Your task to perform on an android device: Search for vegetarian restaurants on Maps Image 0: 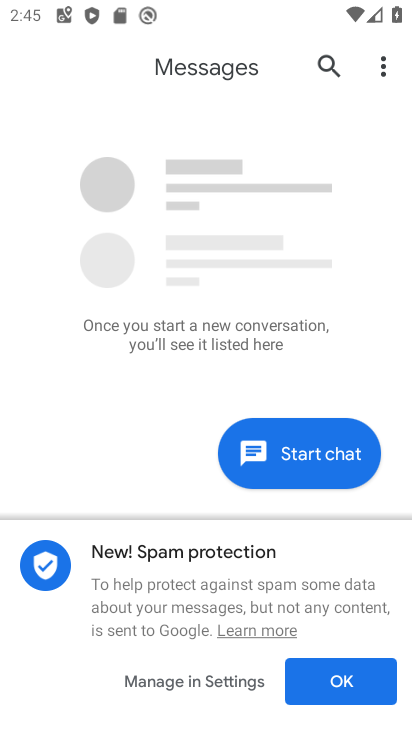
Step 0: press home button
Your task to perform on an android device: Search for vegetarian restaurants on Maps Image 1: 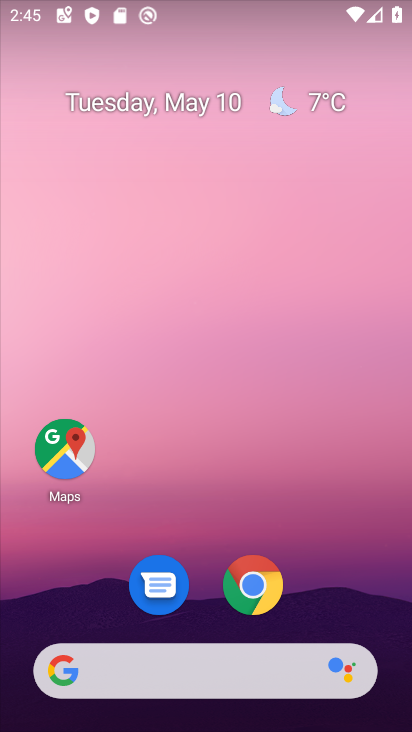
Step 1: click (65, 461)
Your task to perform on an android device: Search for vegetarian restaurants on Maps Image 2: 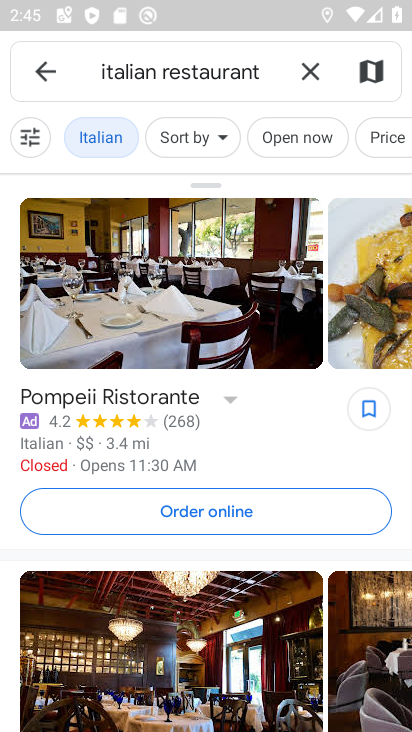
Step 2: click (311, 70)
Your task to perform on an android device: Search for vegetarian restaurants on Maps Image 3: 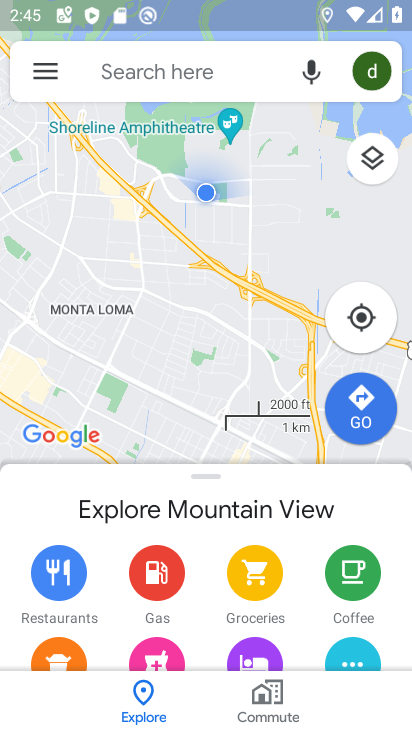
Step 3: click (190, 67)
Your task to perform on an android device: Search for vegetarian restaurants on Maps Image 4: 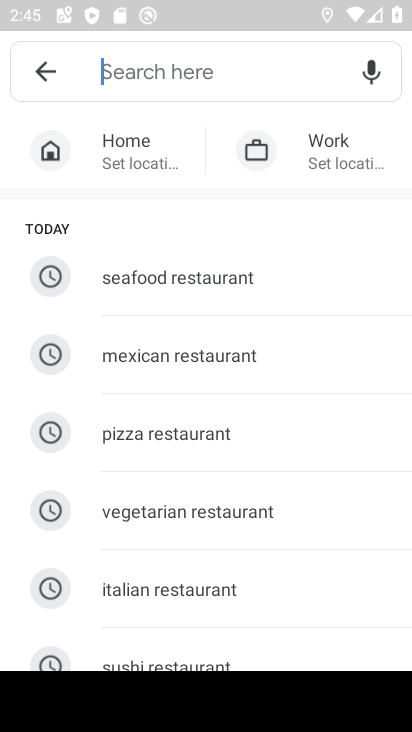
Step 4: click (217, 504)
Your task to perform on an android device: Search for vegetarian restaurants on Maps Image 5: 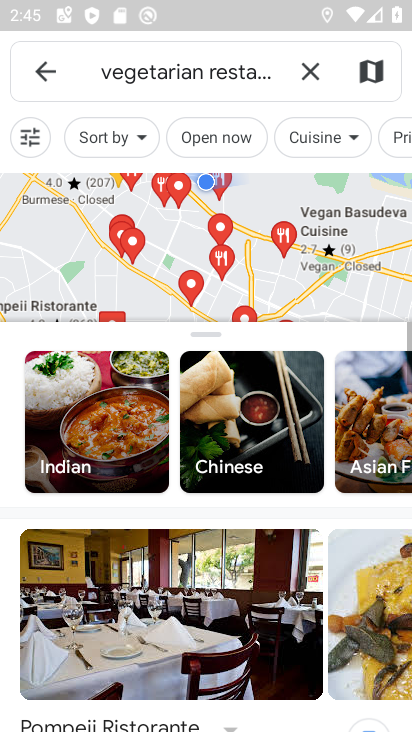
Step 5: task complete